Your task to perform on an android device: Toggle the flashlight Image 0: 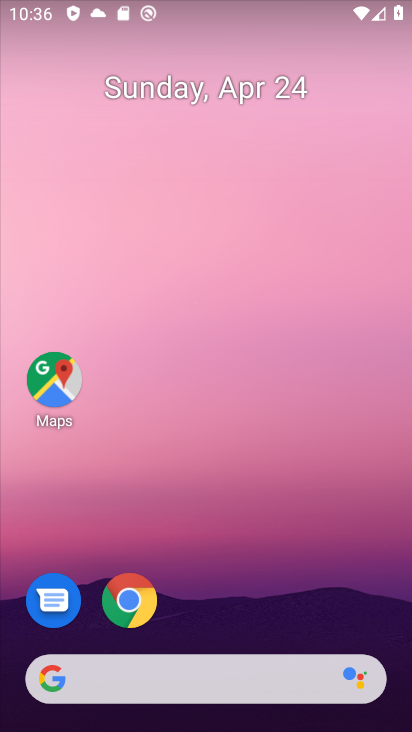
Step 0: drag from (222, 607) to (116, 79)
Your task to perform on an android device: Toggle the flashlight Image 1: 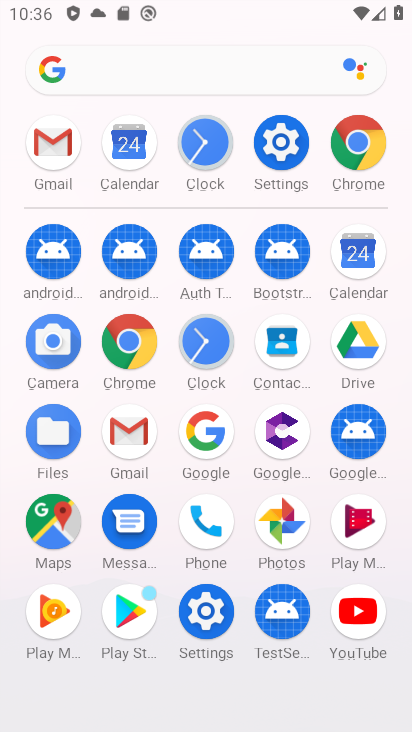
Step 1: click (282, 144)
Your task to perform on an android device: Toggle the flashlight Image 2: 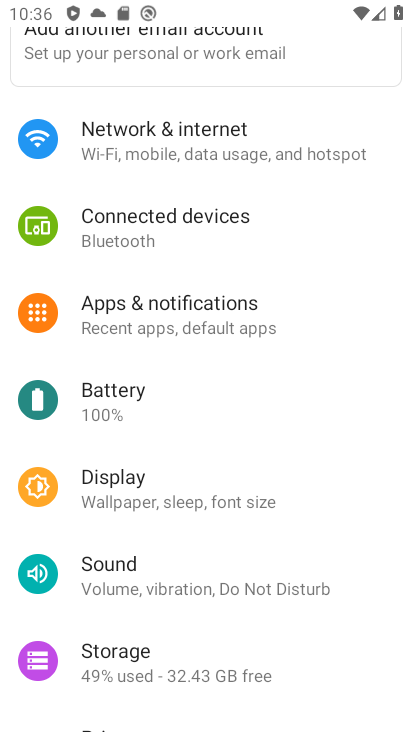
Step 2: click (203, 326)
Your task to perform on an android device: Toggle the flashlight Image 3: 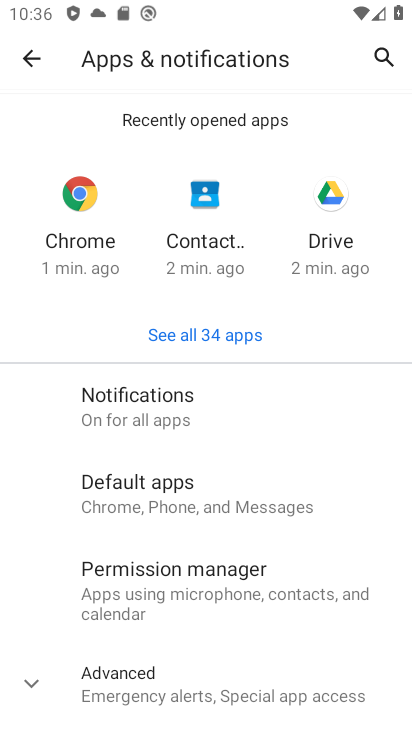
Step 3: task complete